Your task to perform on an android device: Open maps Image 0: 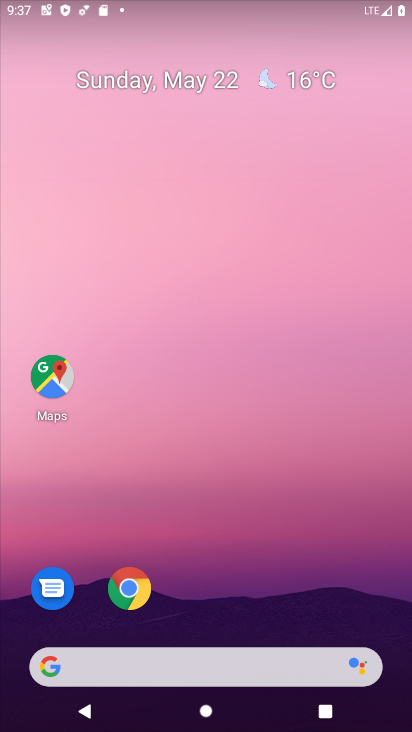
Step 0: click (58, 373)
Your task to perform on an android device: Open maps Image 1: 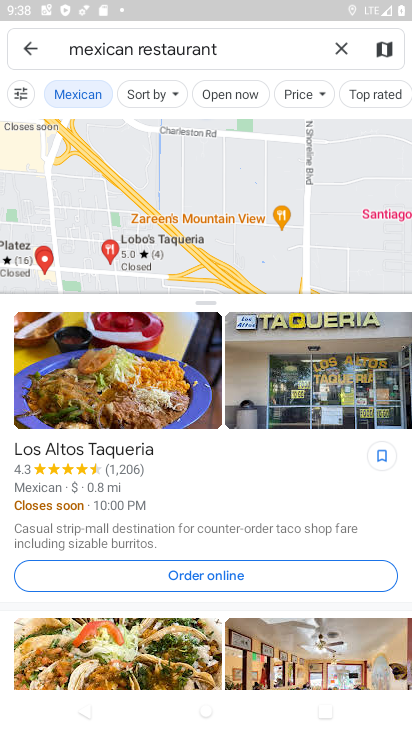
Step 1: task complete